Your task to perform on an android device: clear history in the chrome app Image 0: 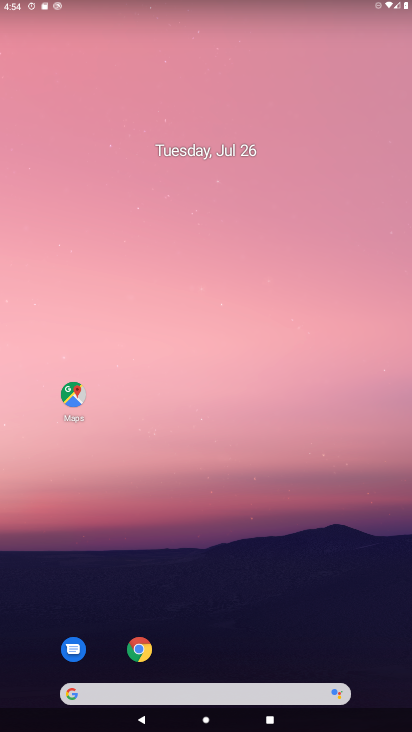
Step 0: drag from (316, 668) to (37, 237)
Your task to perform on an android device: clear history in the chrome app Image 1: 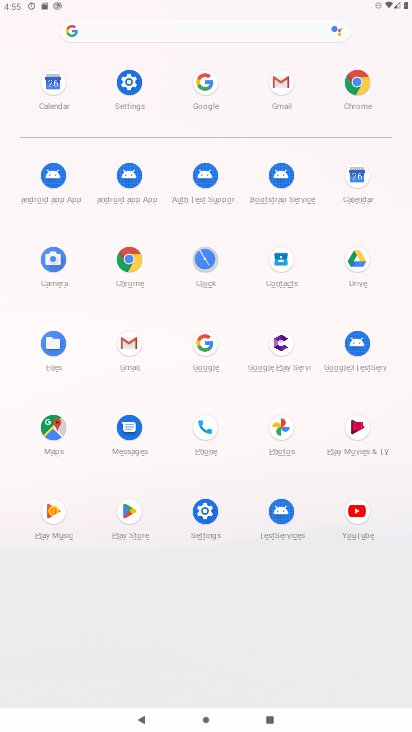
Step 1: click (363, 92)
Your task to perform on an android device: clear history in the chrome app Image 2: 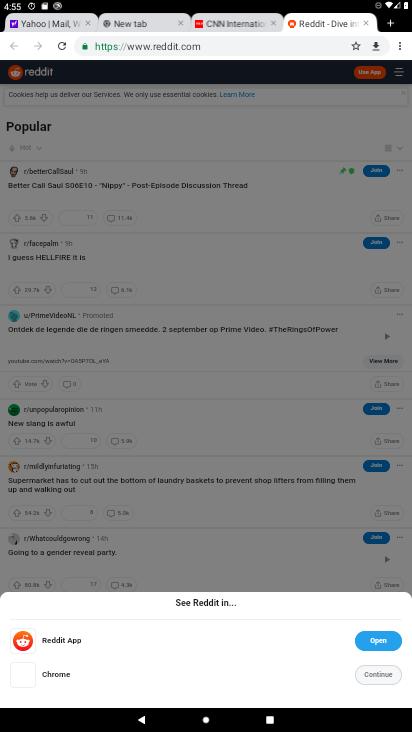
Step 2: click (402, 45)
Your task to perform on an android device: clear history in the chrome app Image 3: 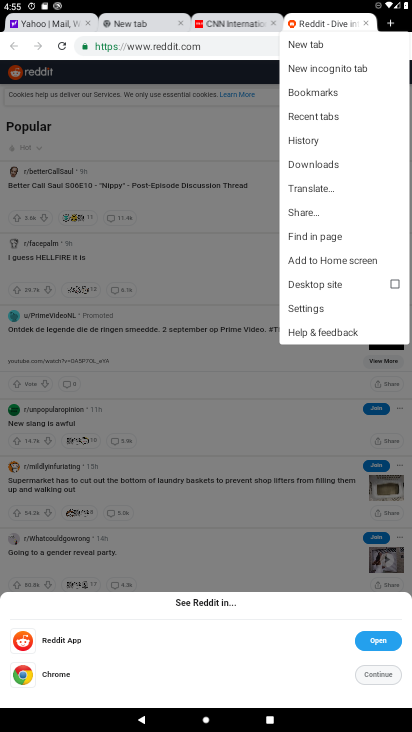
Step 3: click (319, 138)
Your task to perform on an android device: clear history in the chrome app Image 4: 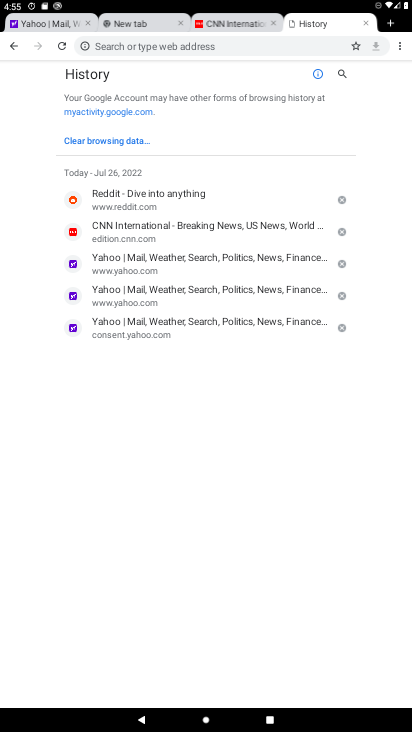
Step 4: click (84, 146)
Your task to perform on an android device: clear history in the chrome app Image 5: 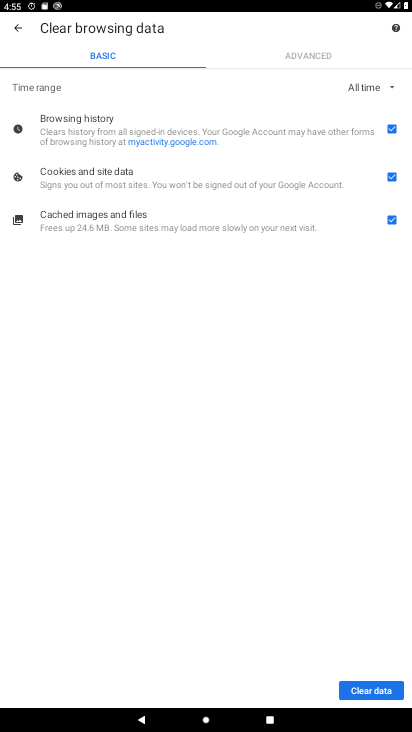
Step 5: click (345, 688)
Your task to perform on an android device: clear history in the chrome app Image 6: 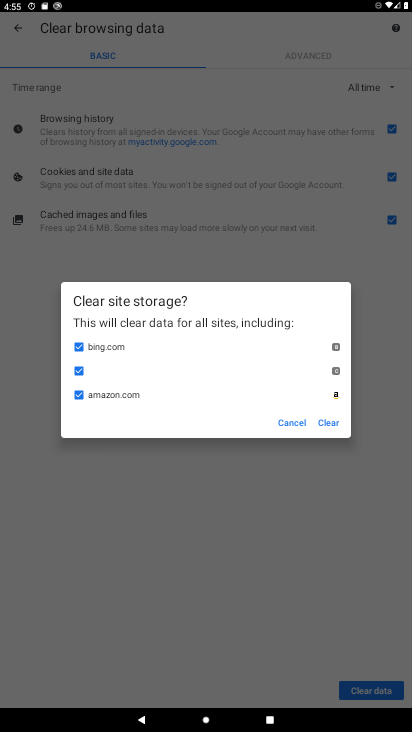
Step 6: click (317, 422)
Your task to perform on an android device: clear history in the chrome app Image 7: 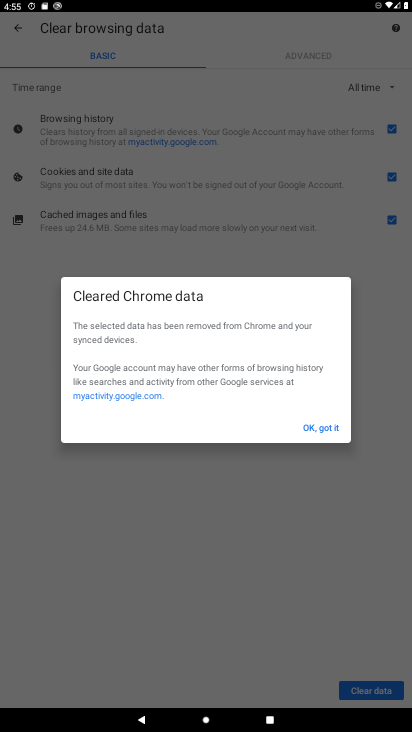
Step 7: click (316, 425)
Your task to perform on an android device: clear history in the chrome app Image 8: 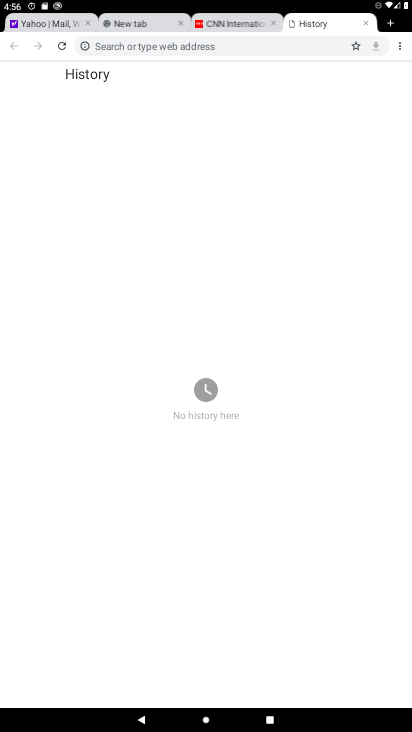
Step 8: task complete